Your task to perform on an android device: delete location history Image 0: 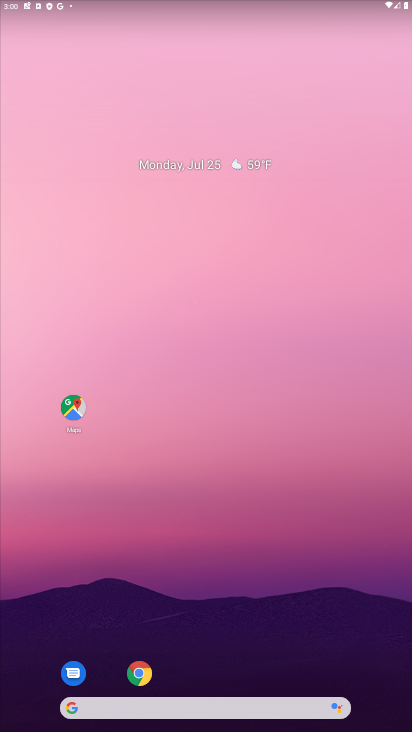
Step 0: click (58, 407)
Your task to perform on an android device: delete location history Image 1: 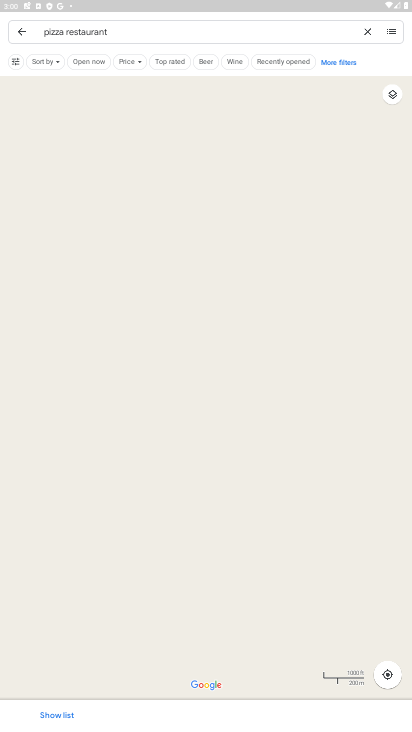
Step 1: click (26, 33)
Your task to perform on an android device: delete location history Image 2: 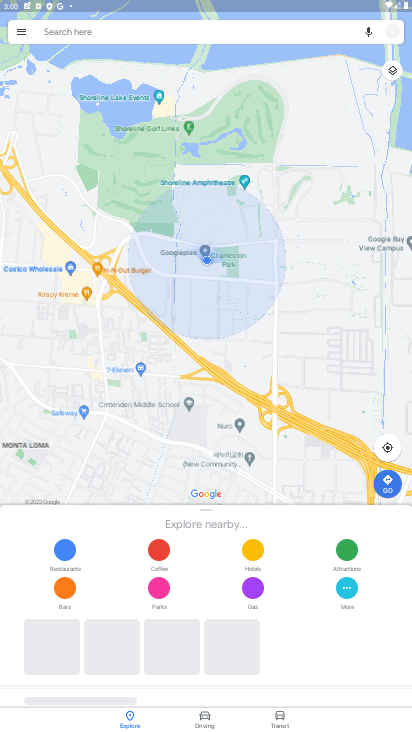
Step 2: click (26, 33)
Your task to perform on an android device: delete location history Image 3: 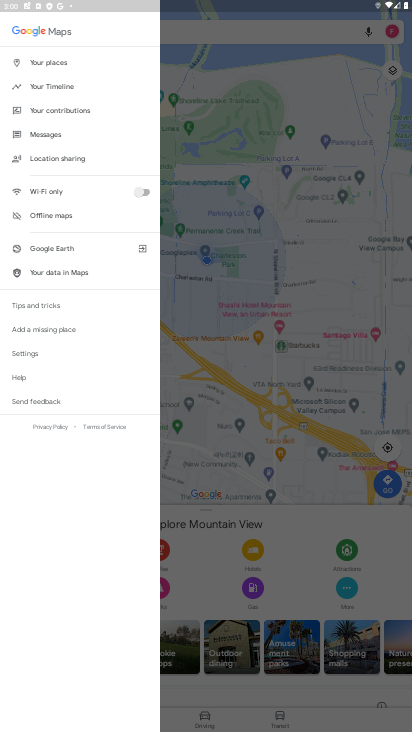
Step 3: click (66, 357)
Your task to perform on an android device: delete location history Image 4: 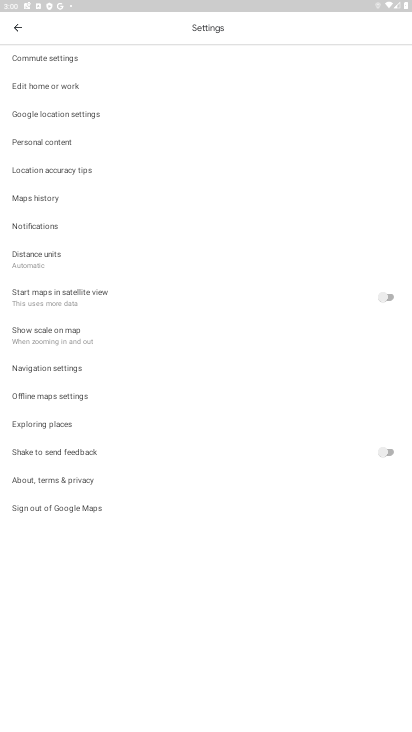
Step 4: click (13, 25)
Your task to perform on an android device: delete location history Image 5: 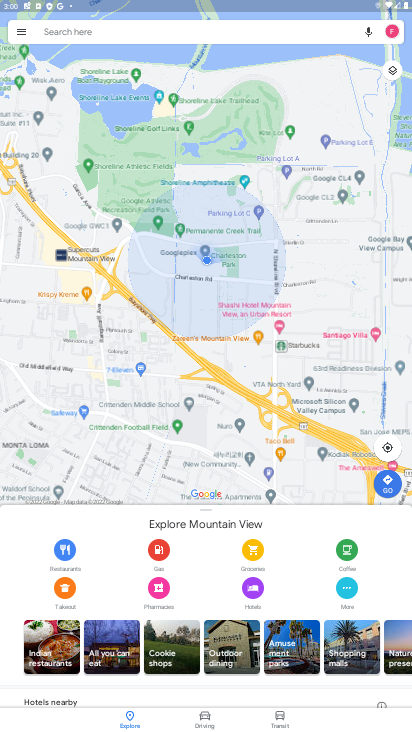
Step 5: click (13, 25)
Your task to perform on an android device: delete location history Image 6: 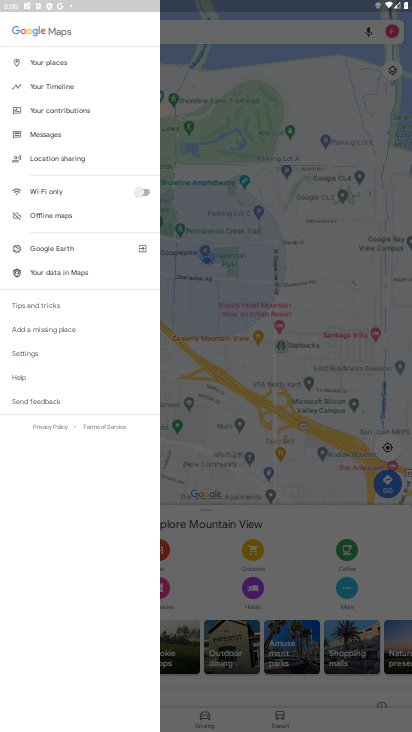
Step 6: click (45, 90)
Your task to perform on an android device: delete location history Image 7: 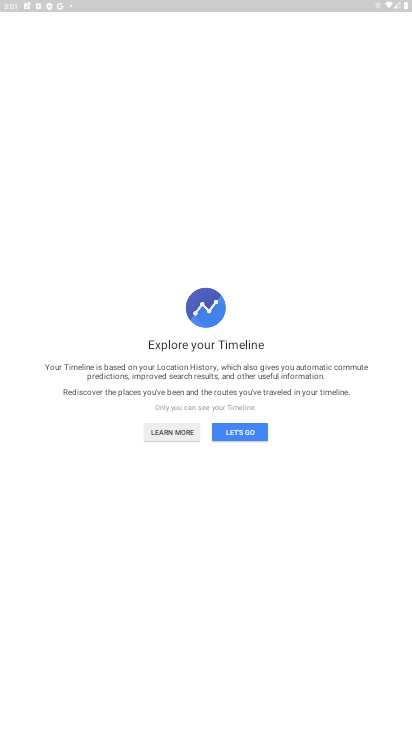
Step 7: click (236, 433)
Your task to perform on an android device: delete location history Image 8: 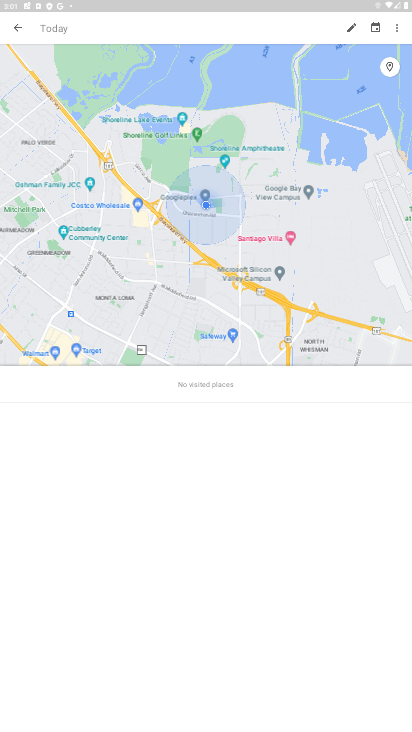
Step 8: click (403, 29)
Your task to perform on an android device: delete location history Image 9: 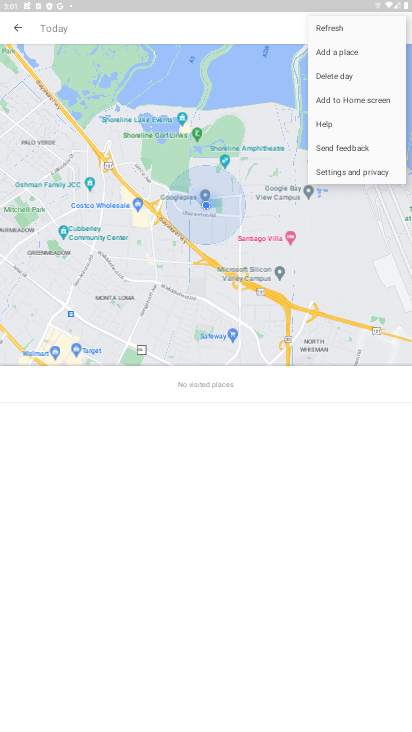
Step 9: click (334, 174)
Your task to perform on an android device: delete location history Image 10: 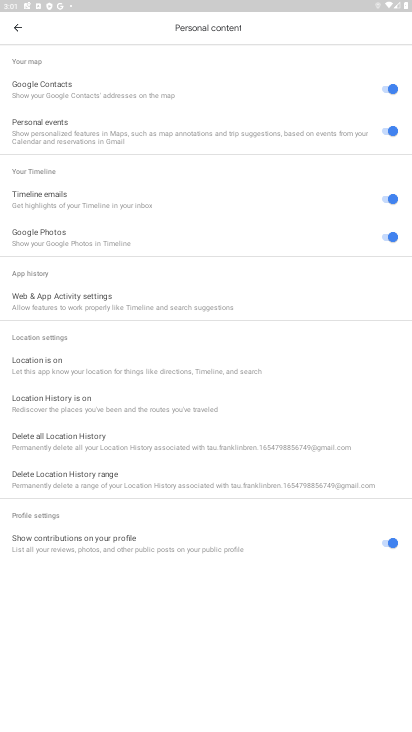
Step 10: click (59, 425)
Your task to perform on an android device: delete location history Image 11: 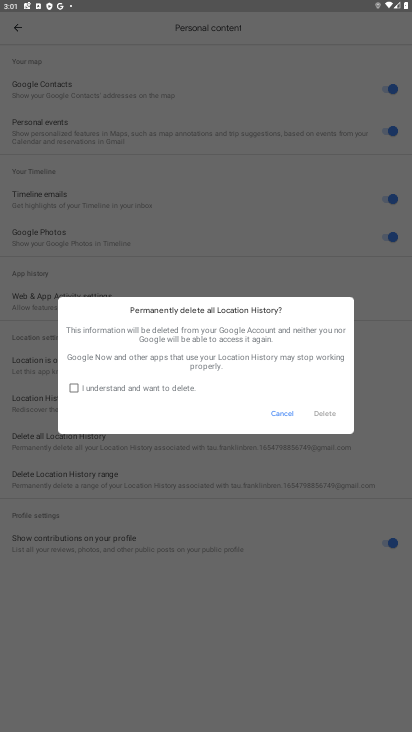
Step 11: click (72, 391)
Your task to perform on an android device: delete location history Image 12: 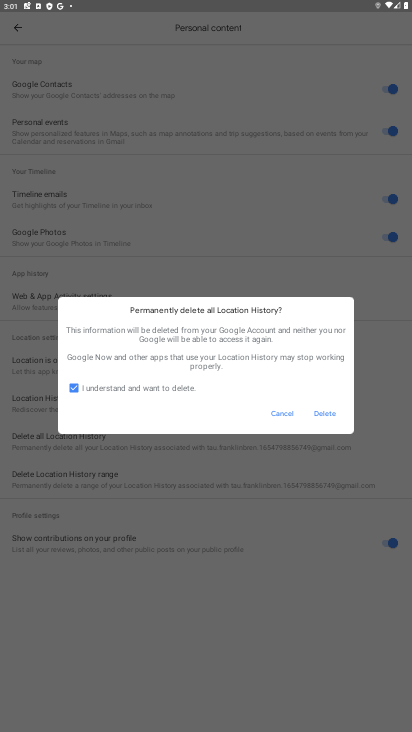
Step 12: click (314, 410)
Your task to perform on an android device: delete location history Image 13: 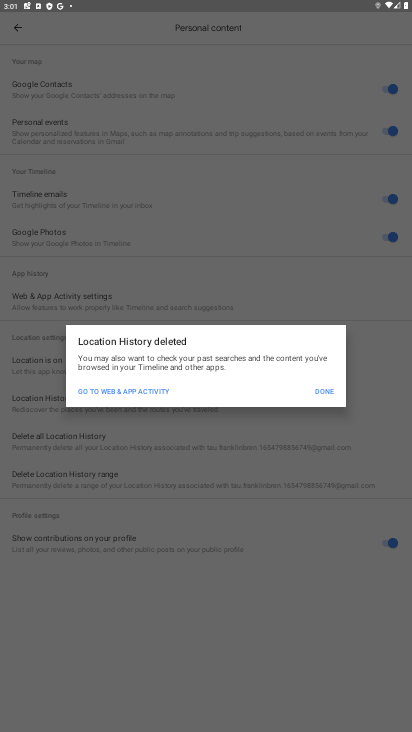
Step 13: click (324, 384)
Your task to perform on an android device: delete location history Image 14: 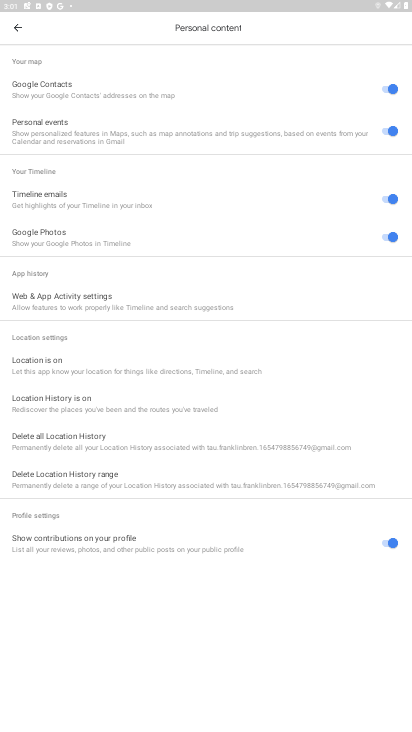
Step 14: task complete